Your task to perform on an android device: Open calendar and show me the first week of next month Image 0: 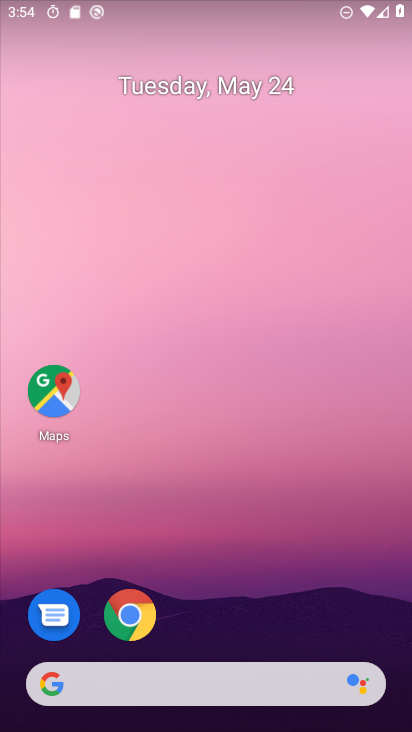
Step 0: drag from (270, 566) to (342, 164)
Your task to perform on an android device: Open calendar and show me the first week of next month Image 1: 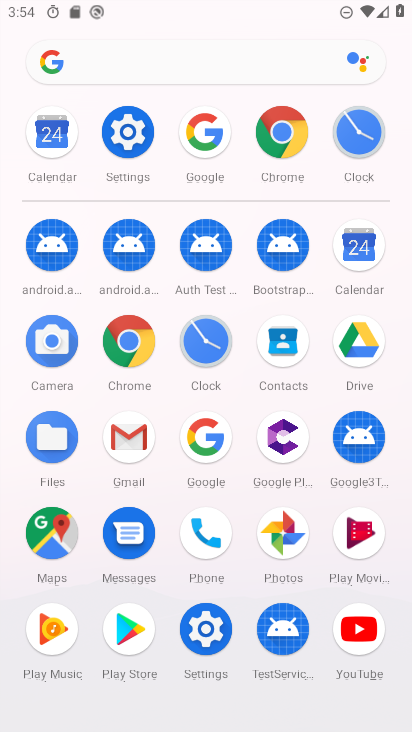
Step 1: click (370, 252)
Your task to perform on an android device: Open calendar and show me the first week of next month Image 2: 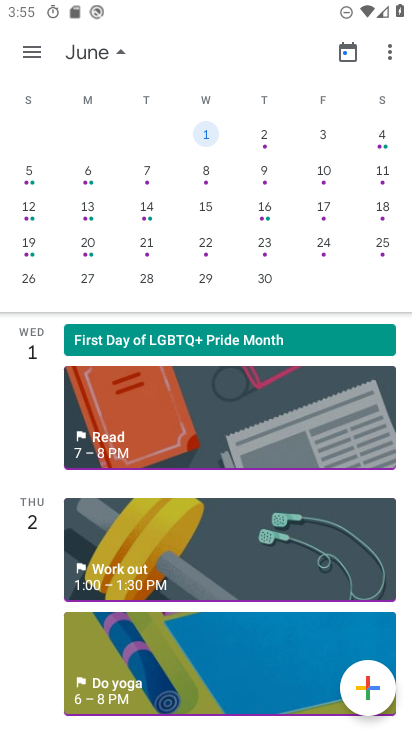
Step 2: click (209, 137)
Your task to perform on an android device: Open calendar and show me the first week of next month Image 3: 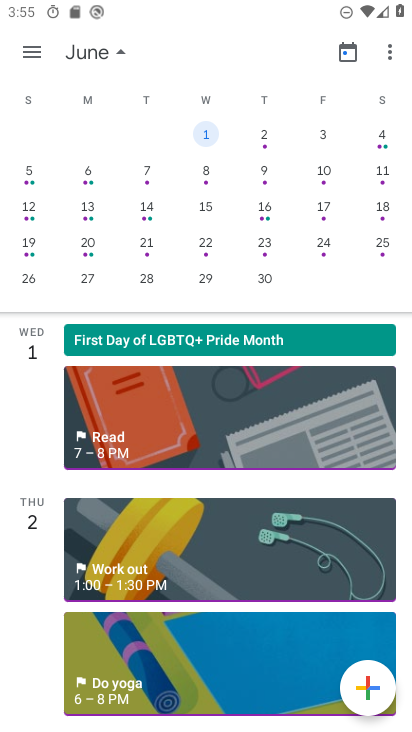
Step 3: task complete